Your task to perform on an android device: turn on wifi Image 0: 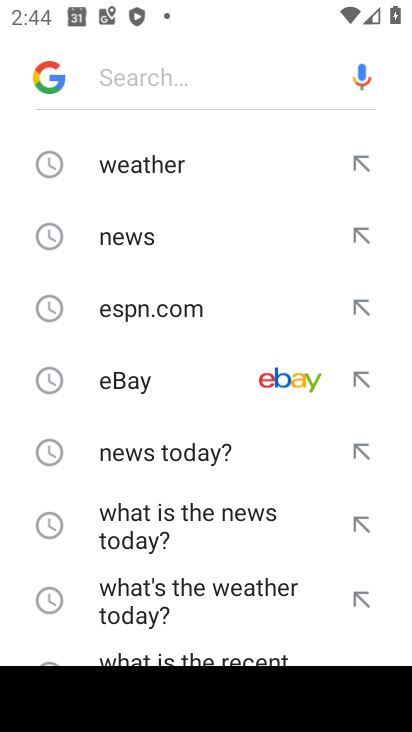
Step 0: press home button
Your task to perform on an android device: turn on wifi Image 1: 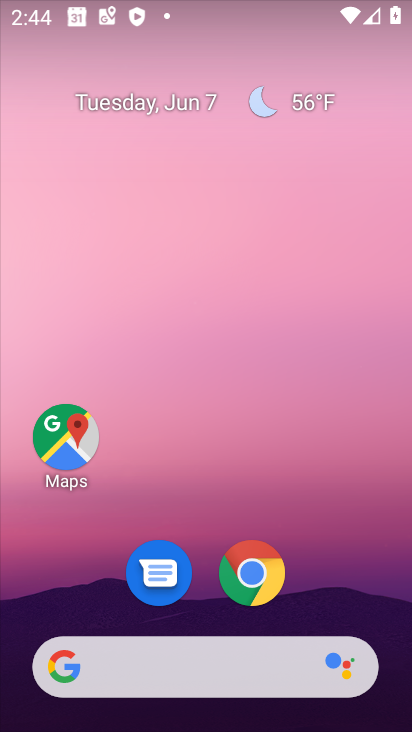
Step 1: drag from (326, 593) to (316, 56)
Your task to perform on an android device: turn on wifi Image 2: 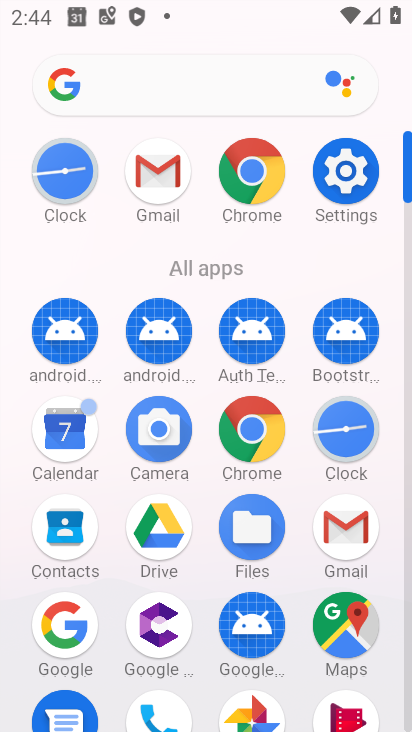
Step 2: click (337, 201)
Your task to perform on an android device: turn on wifi Image 3: 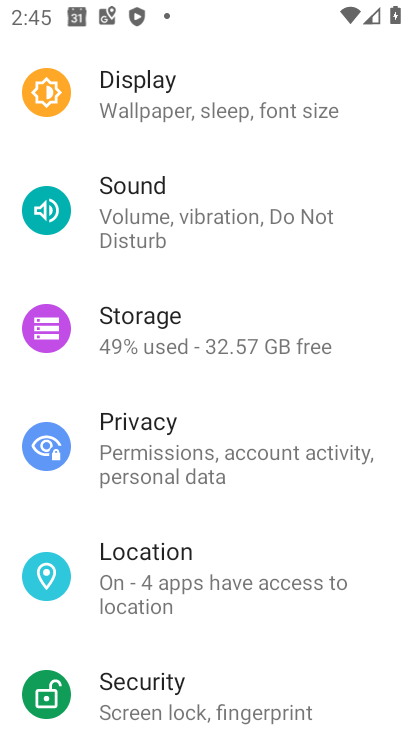
Step 3: drag from (258, 323) to (271, 702)
Your task to perform on an android device: turn on wifi Image 4: 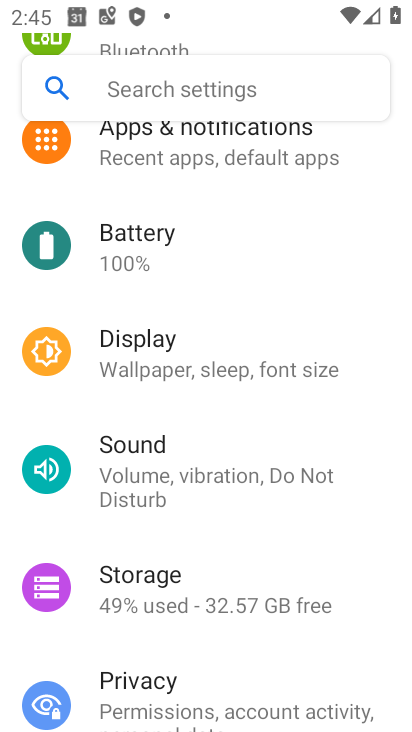
Step 4: drag from (204, 443) to (208, 725)
Your task to perform on an android device: turn on wifi Image 5: 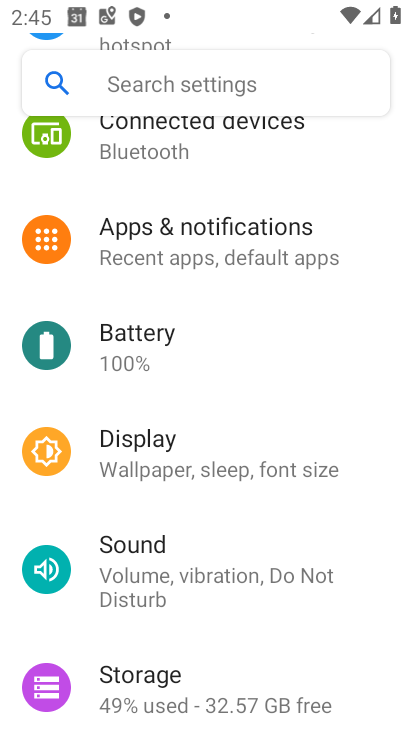
Step 5: drag from (243, 477) to (286, 712)
Your task to perform on an android device: turn on wifi Image 6: 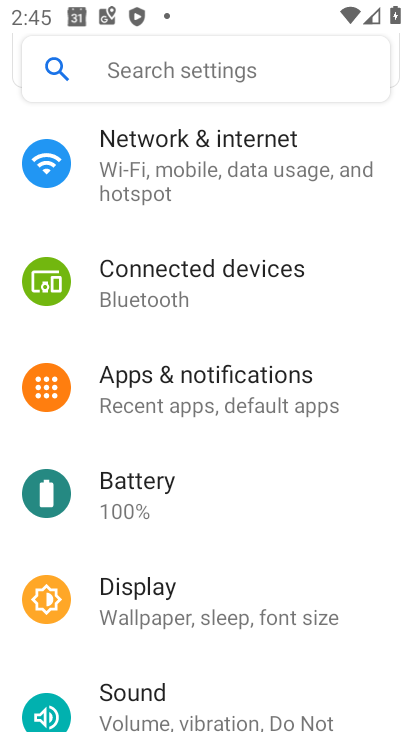
Step 6: drag from (251, 352) to (288, 678)
Your task to perform on an android device: turn on wifi Image 7: 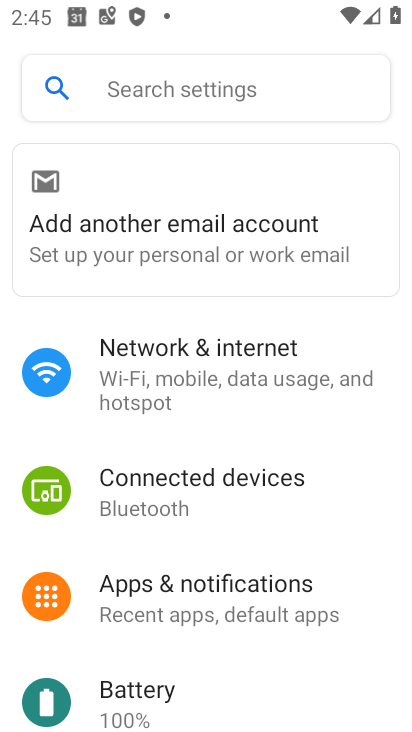
Step 7: click (121, 369)
Your task to perform on an android device: turn on wifi Image 8: 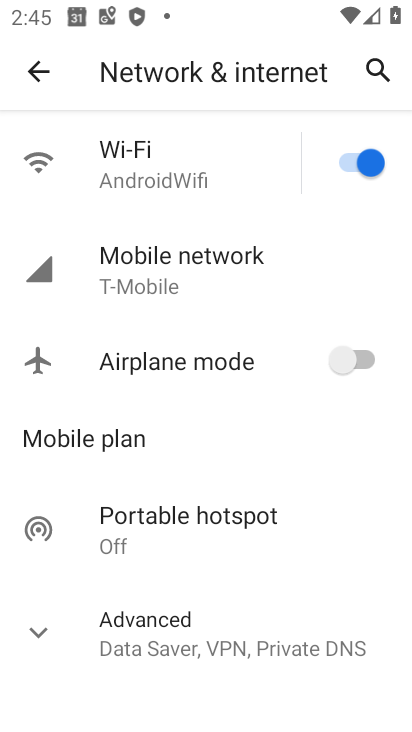
Step 8: task complete